Your task to perform on an android device: Open Yahoo.com Image 0: 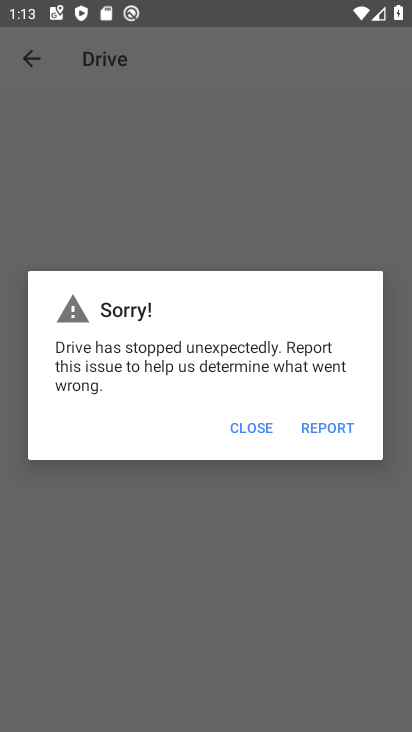
Step 0: press home button
Your task to perform on an android device: Open Yahoo.com Image 1: 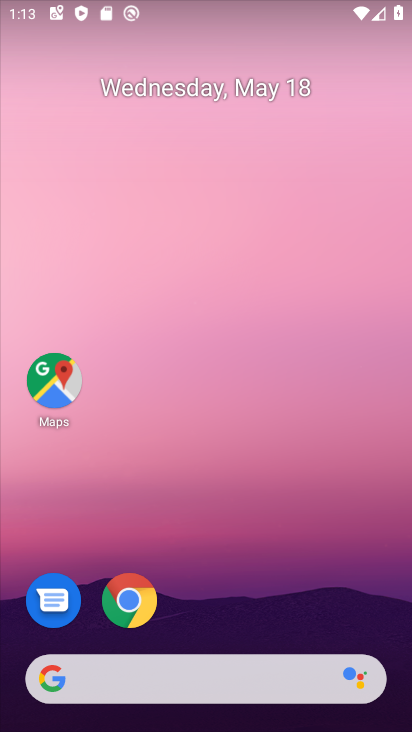
Step 1: click (129, 600)
Your task to perform on an android device: Open Yahoo.com Image 2: 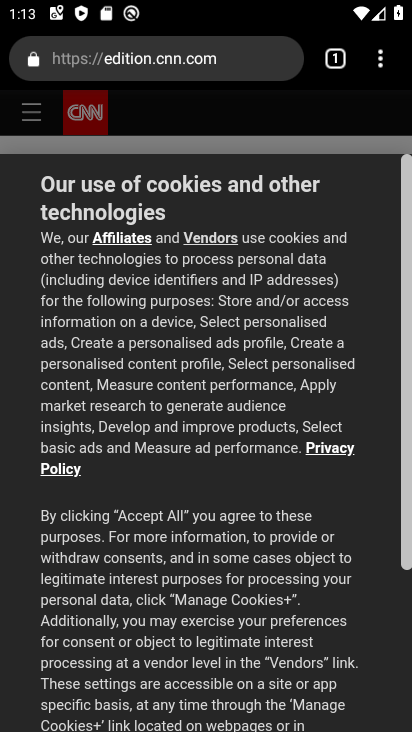
Step 2: click (244, 50)
Your task to perform on an android device: Open Yahoo.com Image 3: 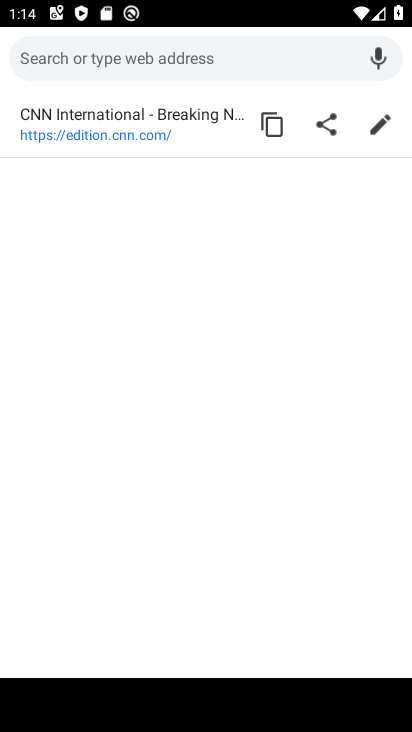
Step 3: type "Yahoo.com"
Your task to perform on an android device: Open Yahoo.com Image 4: 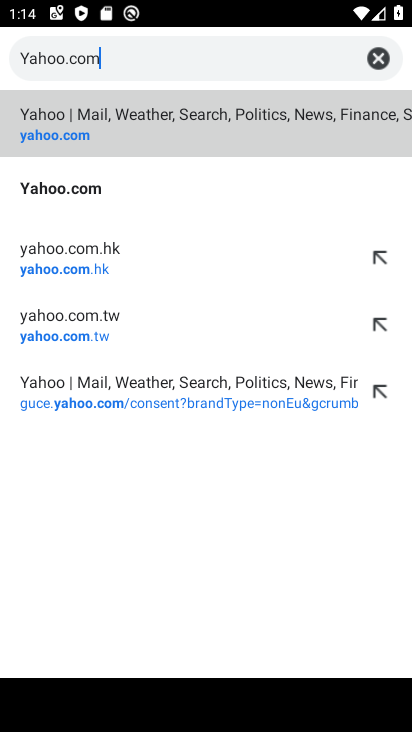
Step 4: click (97, 191)
Your task to perform on an android device: Open Yahoo.com Image 5: 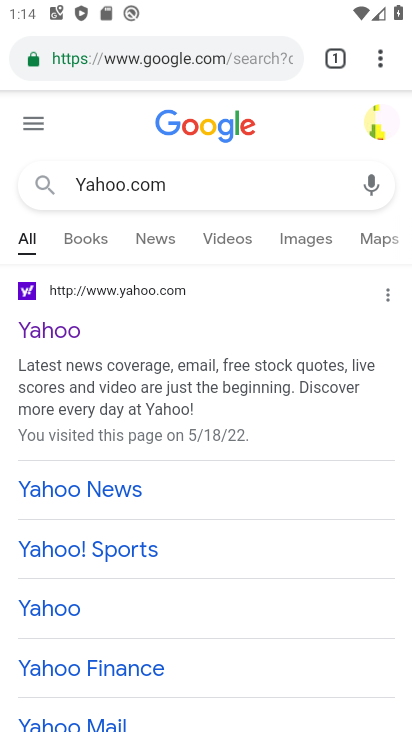
Step 5: click (51, 329)
Your task to perform on an android device: Open Yahoo.com Image 6: 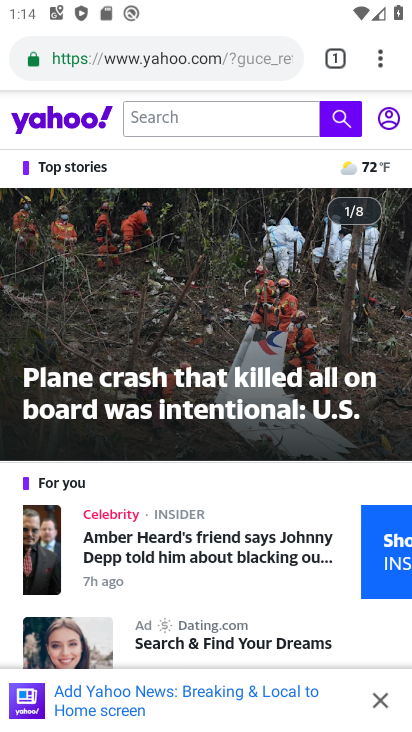
Step 6: task complete